Your task to perform on an android device: Go to privacy settings Image 0: 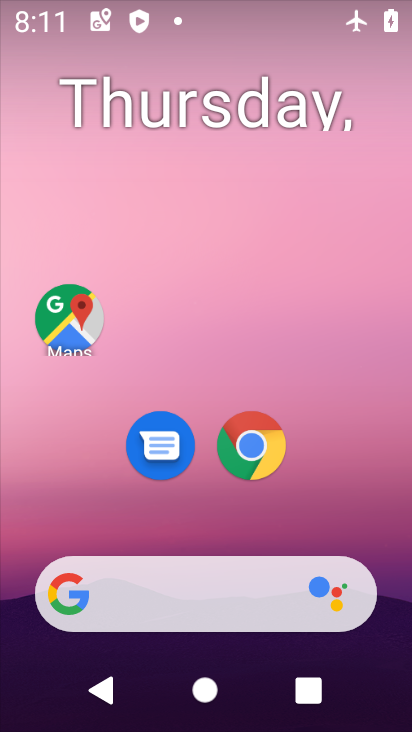
Step 0: drag from (402, 617) to (314, 142)
Your task to perform on an android device: Go to privacy settings Image 1: 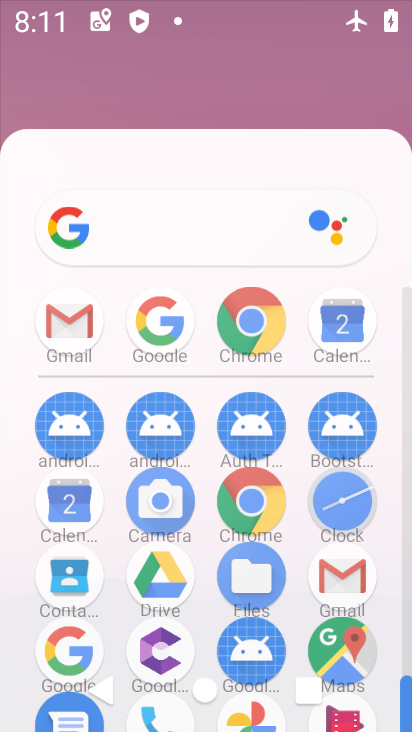
Step 1: click (289, 74)
Your task to perform on an android device: Go to privacy settings Image 2: 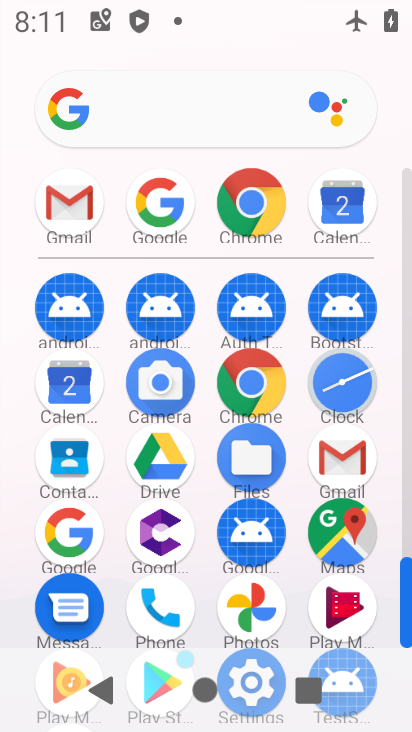
Step 2: drag from (296, 607) to (286, 181)
Your task to perform on an android device: Go to privacy settings Image 3: 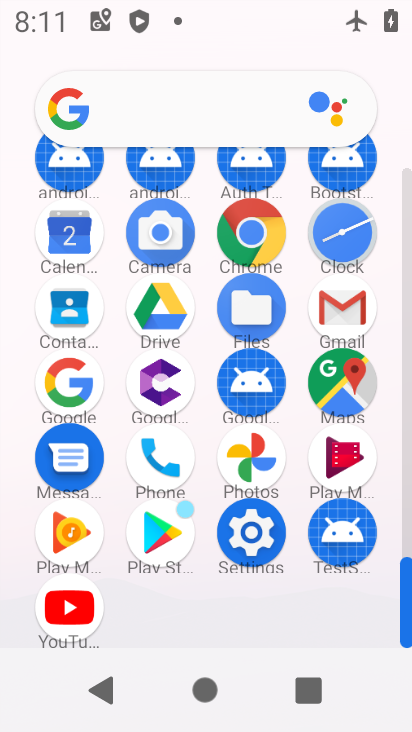
Step 3: click (255, 539)
Your task to perform on an android device: Go to privacy settings Image 4: 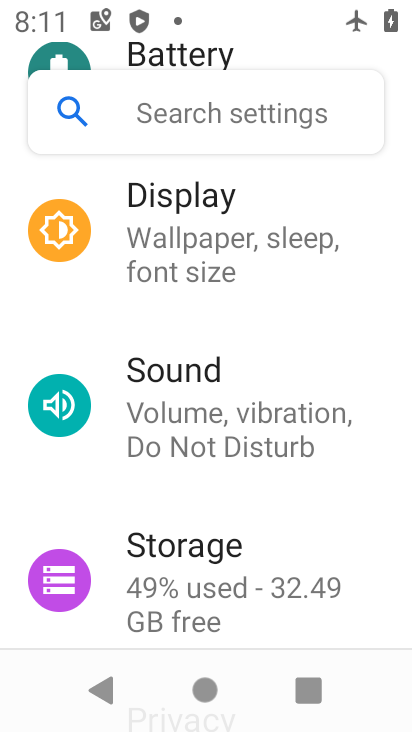
Step 4: drag from (224, 182) to (181, 621)
Your task to perform on an android device: Go to privacy settings Image 5: 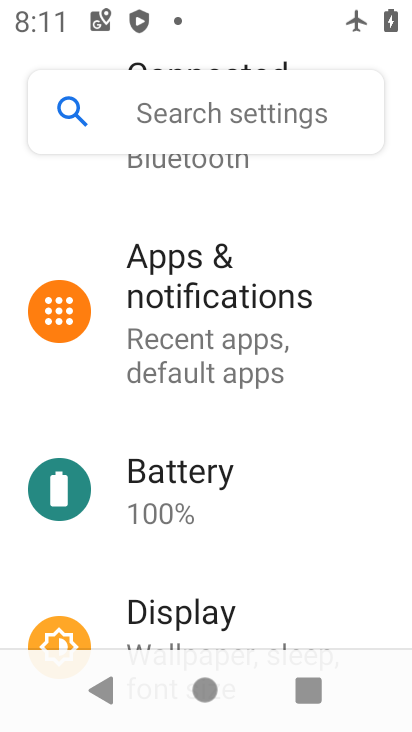
Step 5: drag from (102, 580) to (146, 79)
Your task to perform on an android device: Go to privacy settings Image 6: 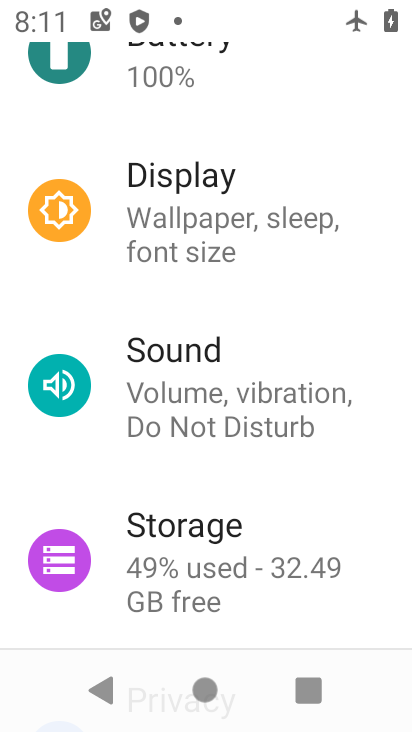
Step 6: drag from (127, 575) to (193, 128)
Your task to perform on an android device: Go to privacy settings Image 7: 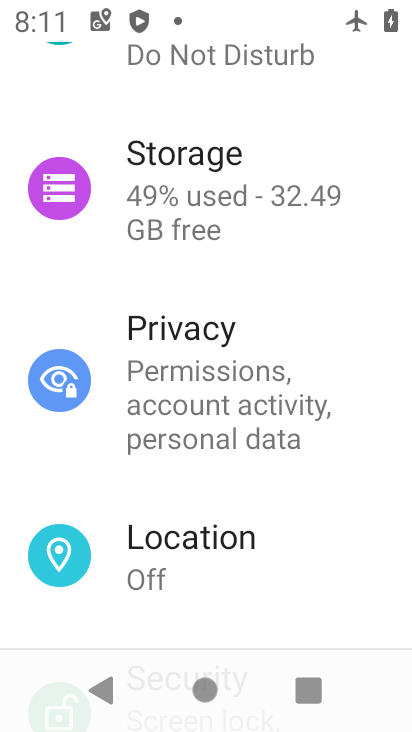
Step 7: click (215, 396)
Your task to perform on an android device: Go to privacy settings Image 8: 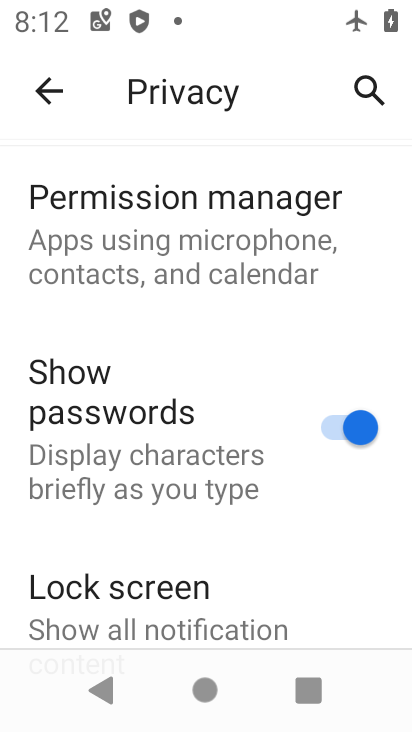
Step 8: task complete